Your task to perform on an android device: Open Google Chrome and click the shortcut for Amazon.com Image 0: 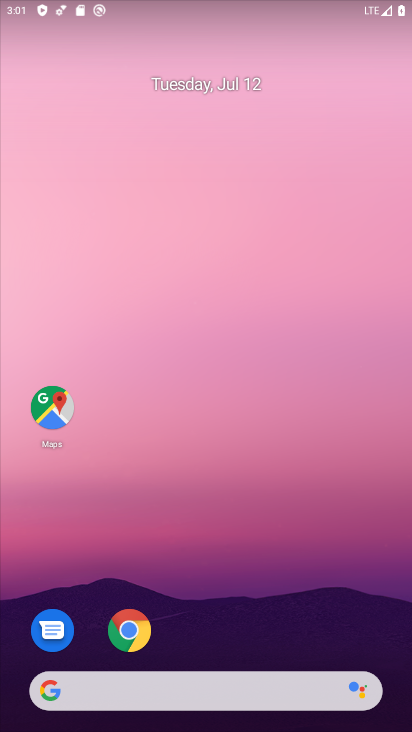
Step 0: click (136, 627)
Your task to perform on an android device: Open Google Chrome and click the shortcut for Amazon.com Image 1: 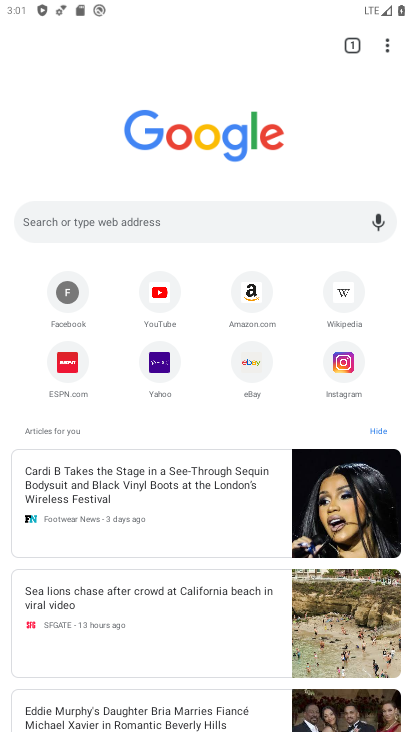
Step 1: click (261, 289)
Your task to perform on an android device: Open Google Chrome and click the shortcut for Amazon.com Image 2: 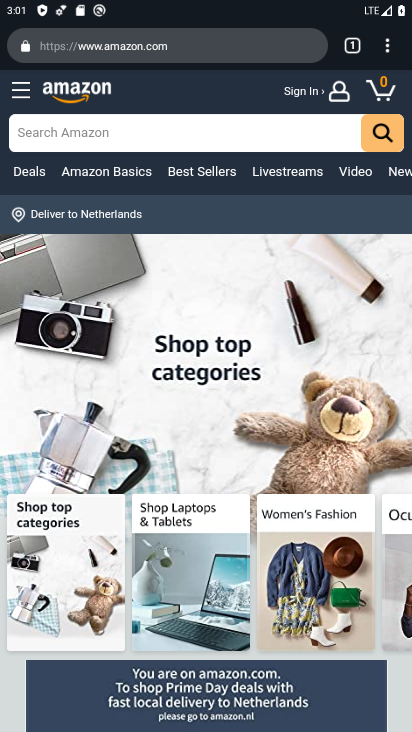
Step 2: task complete